Your task to perform on an android device: open the mobile data screen to see how much data has been used Image 0: 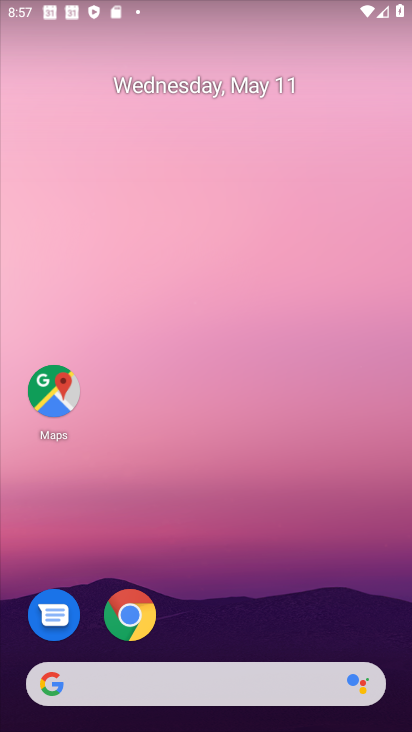
Step 0: drag from (91, 510) to (240, 154)
Your task to perform on an android device: open the mobile data screen to see how much data has been used Image 1: 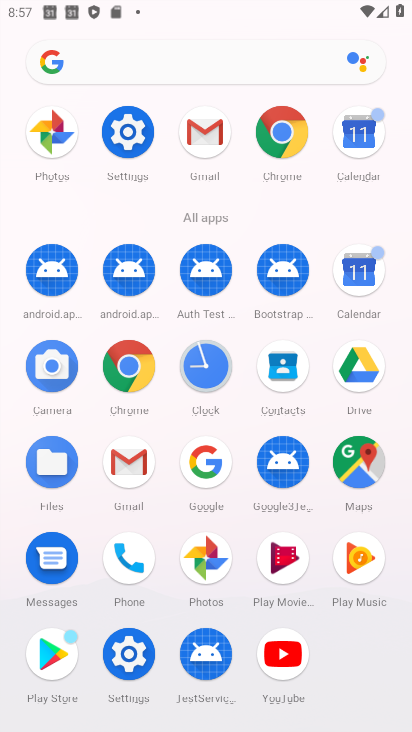
Step 1: click (139, 138)
Your task to perform on an android device: open the mobile data screen to see how much data has been used Image 2: 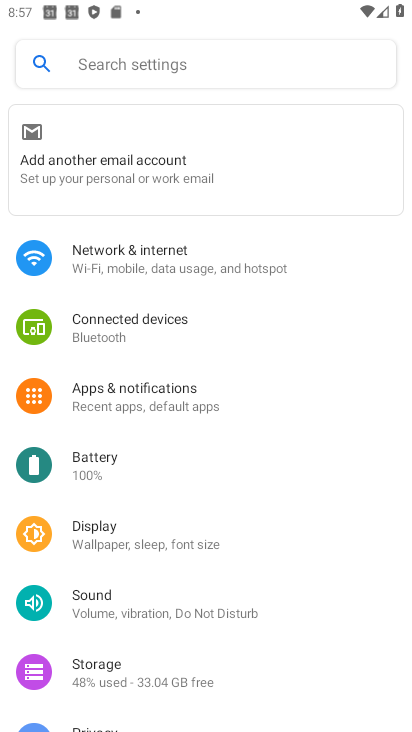
Step 2: click (135, 251)
Your task to perform on an android device: open the mobile data screen to see how much data has been used Image 3: 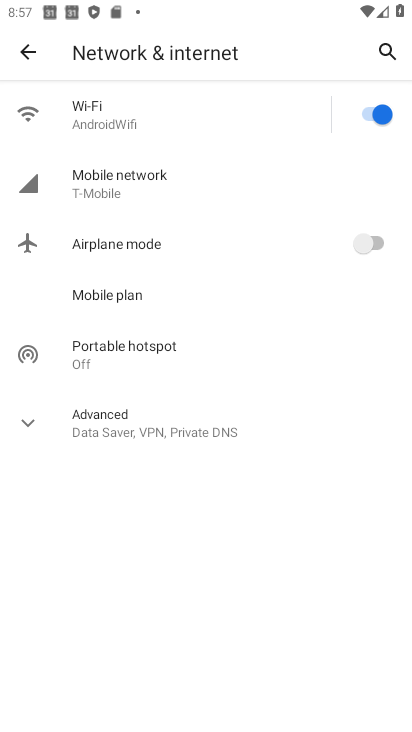
Step 3: click (135, 173)
Your task to perform on an android device: open the mobile data screen to see how much data has been used Image 4: 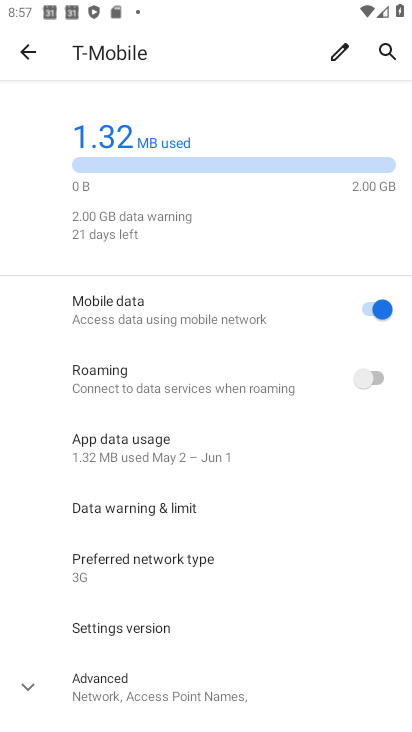
Step 4: task complete